Your task to perform on an android device: turn on data saver in the chrome app Image 0: 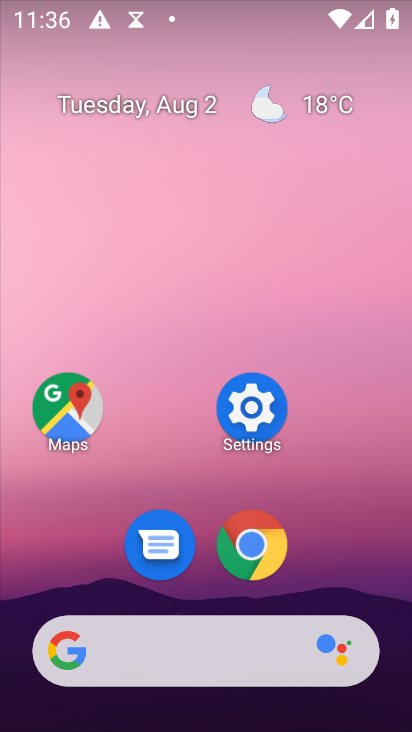
Step 0: click (253, 549)
Your task to perform on an android device: turn on data saver in the chrome app Image 1: 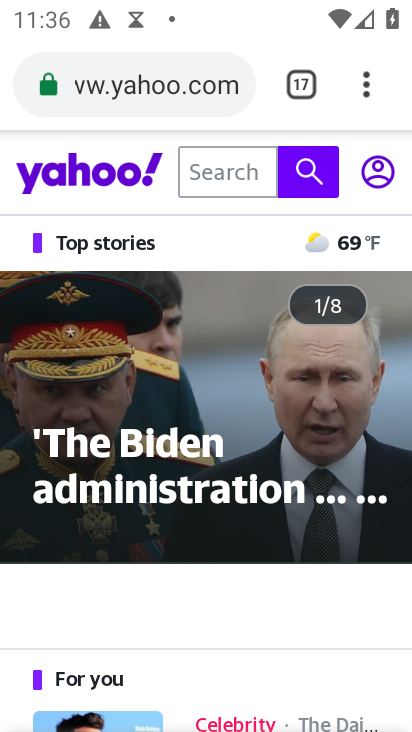
Step 1: drag from (361, 85) to (224, 609)
Your task to perform on an android device: turn on data saver in the chrome app Image 2: 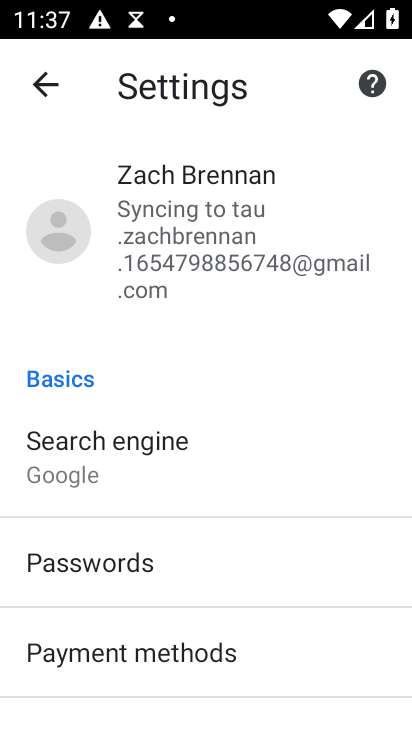
Step 2: drag from (271, 691) to (319, 245)
Your task to perform on an android device: turn on data saver in the chrome app Image 3: 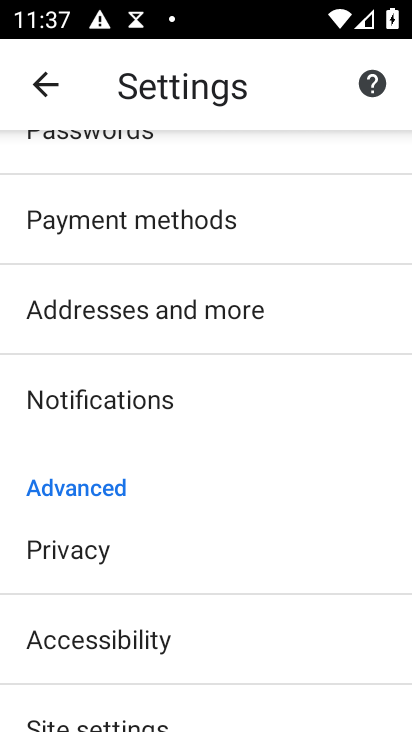
Step 3: drag from (221, 706) to (283, 386)
Your task to perform on an android device: turn on data saver in the chrome app Image 4: 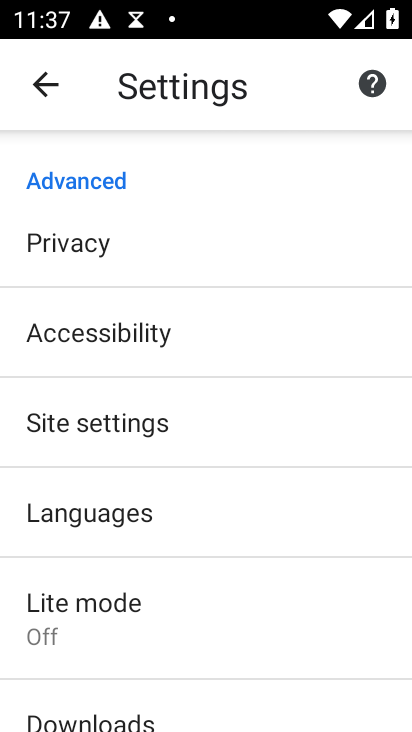
Step 4: click (85, 622)
Your task to perform on an android device: turn on data saver in the chrome app Image 5: 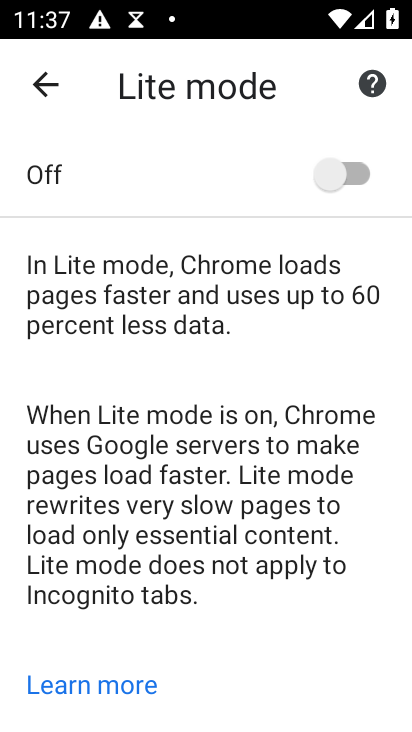
Step 5: click (356, 170)
Your task to perform on an android device: turn on data saver in the chrome app Image 6: 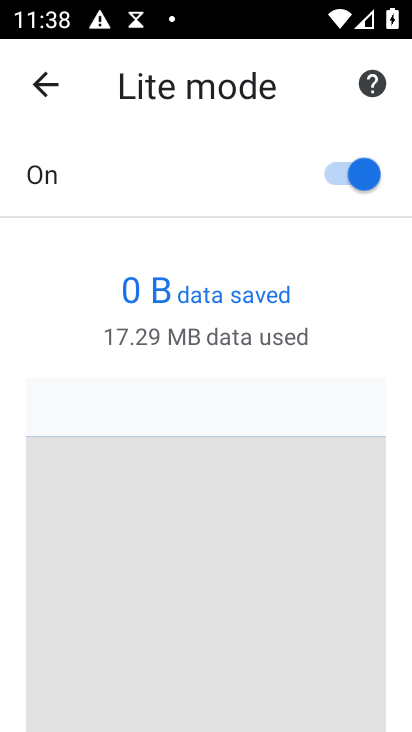
Step 6: task complete